Your task to perform on an android device: add a contact in the contacts app Image 0: 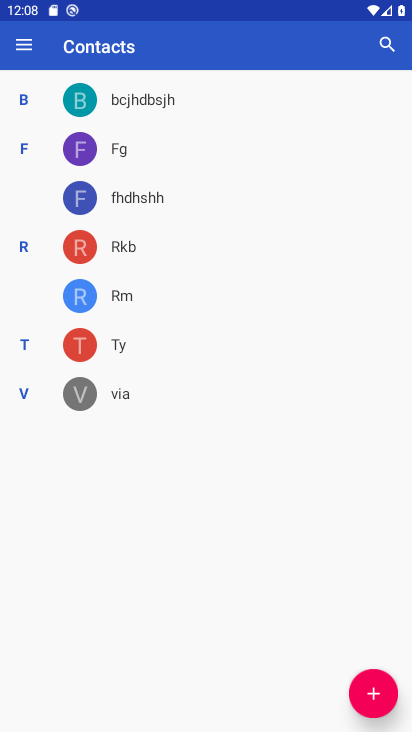
Step 0: click (381, 694)
Your task to perform on an android device: add a contact in the contacts app Image 1: 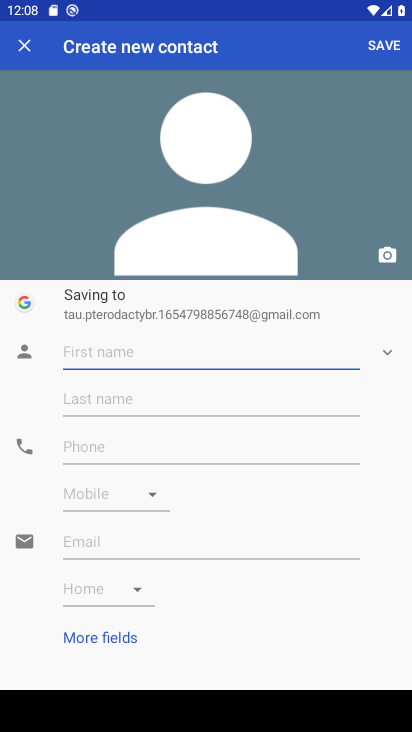
Step 1: type "chamoli"
Your task to perform on an android device: add a contact in the contacts app Image 2: 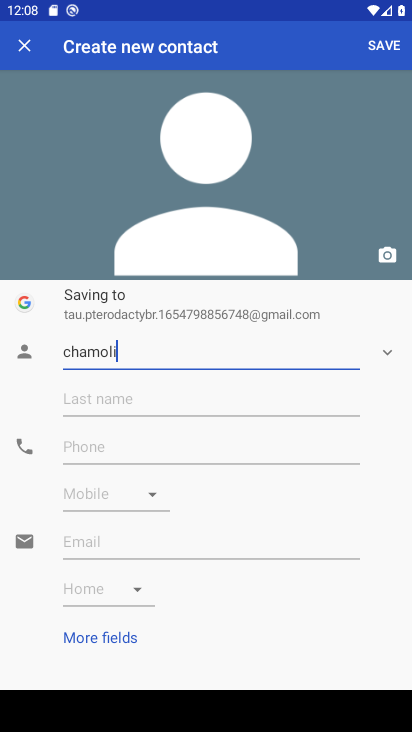
Step 2: click (383, 48)
Your task to perform on an android device: add a contact in the contacts app Image 3: 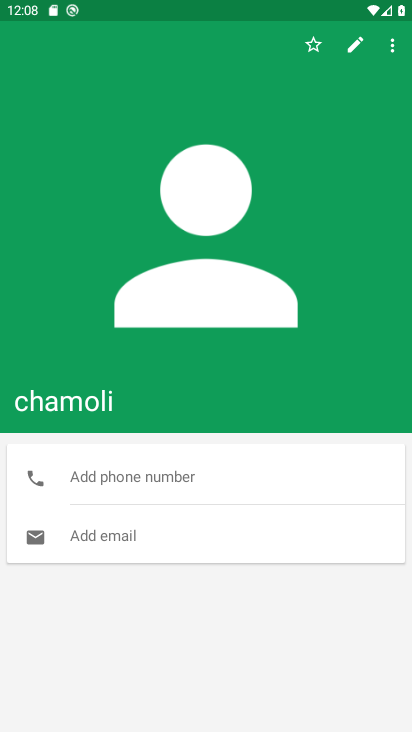
Step 3: task complete